Your task to perform on an android device: Check the settings for the Twitter app Image 0: 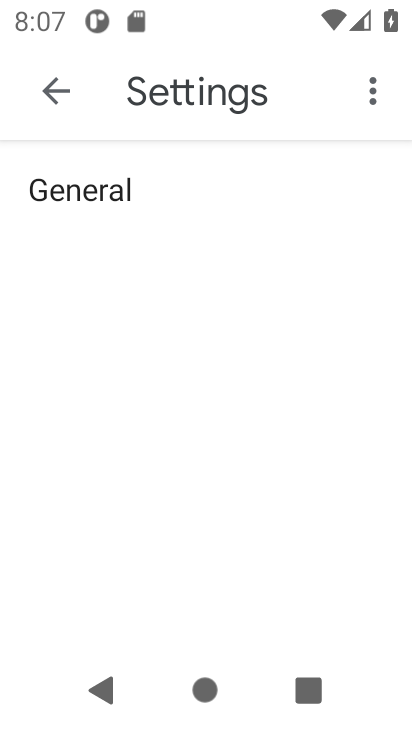
Step 0: press home button
Your task to perform on an android device: Check the settings for the Twitter app Image 1: 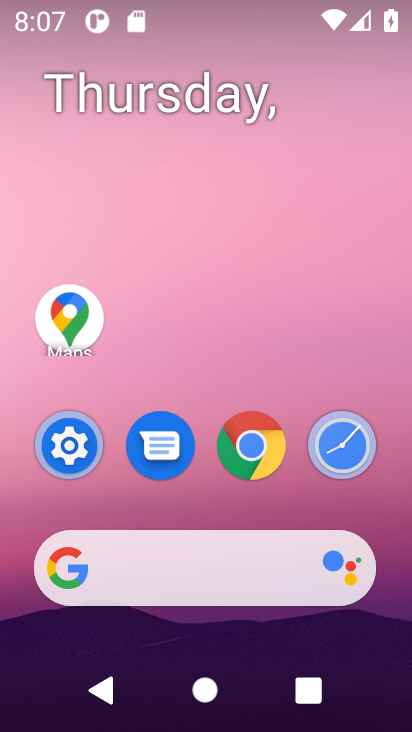
Step 1: task complete